Your task to perform on an android device: Open Chrome and go to the settings page Image 0: 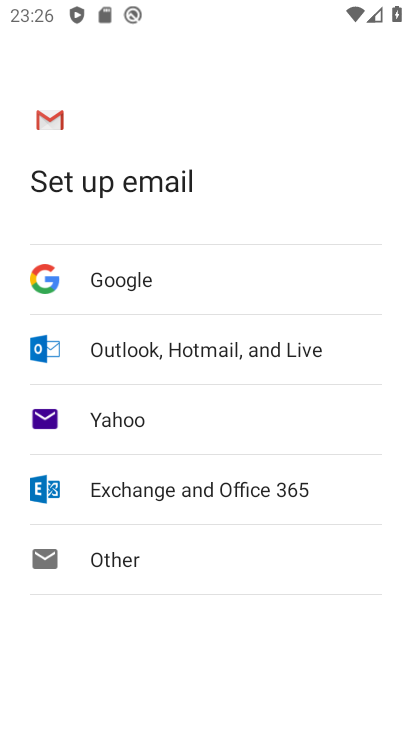
Step 0: press back button
Your task to perform on an android device: Open Chrome and go to the settings page Image 1: 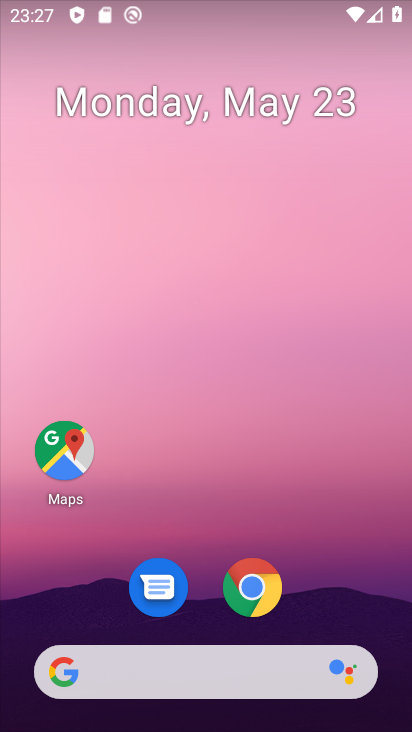
Step 1: click (253, 585)
Your task to perform on an android device: Open Chrome and go to the settings page Image 2: 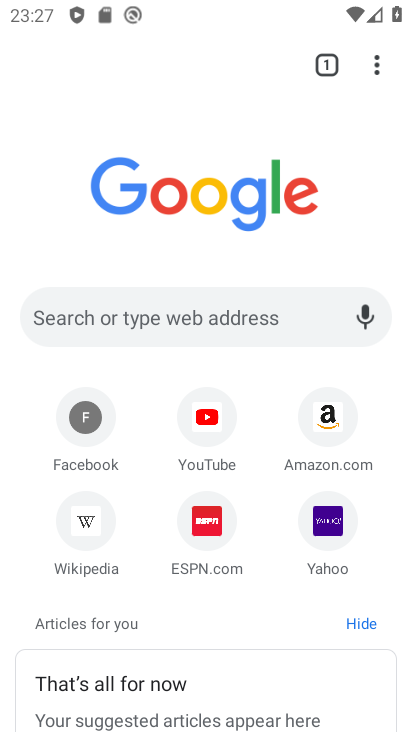
Step 2: click (378, 69)
Your task to perform on an android device: Open Chrome and go to the settings page Image 3: 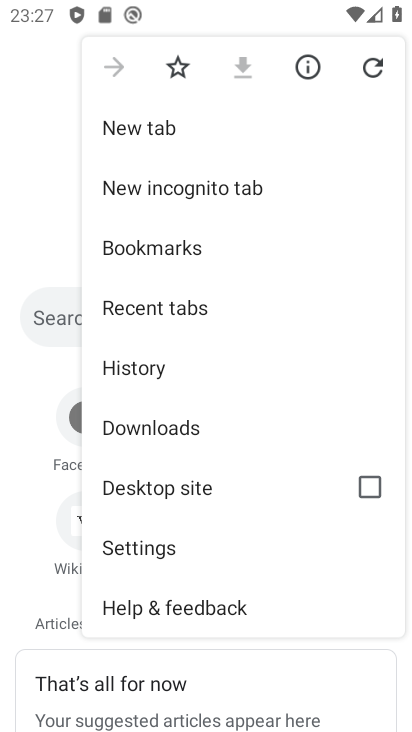
Step 3: click (144, 539)
Your task to perform on an android device: Open Chrome and go to the settings page Image 4: 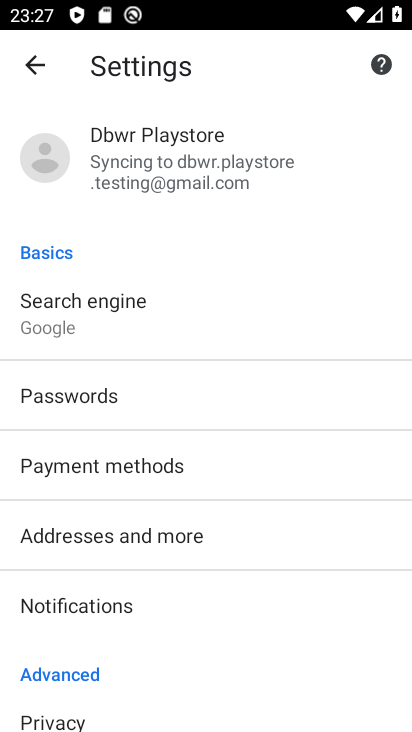
Step 4: task complete